Your task to perform on an android device: open app "Google Chrome" Image 0: 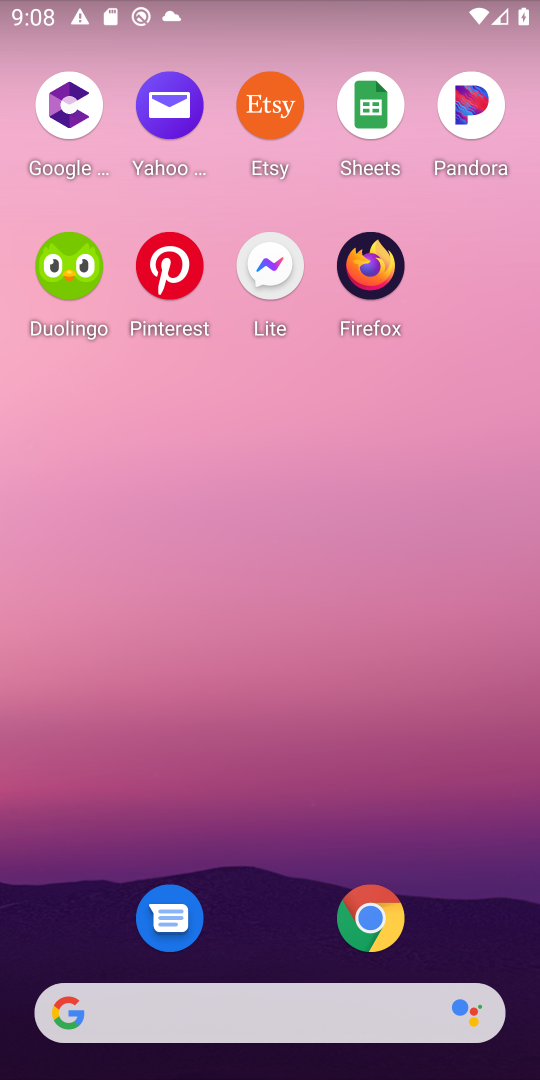
Step 0: click (362, 922)
Your task to perform on an android device: open app "Google Chrome" Image 1: 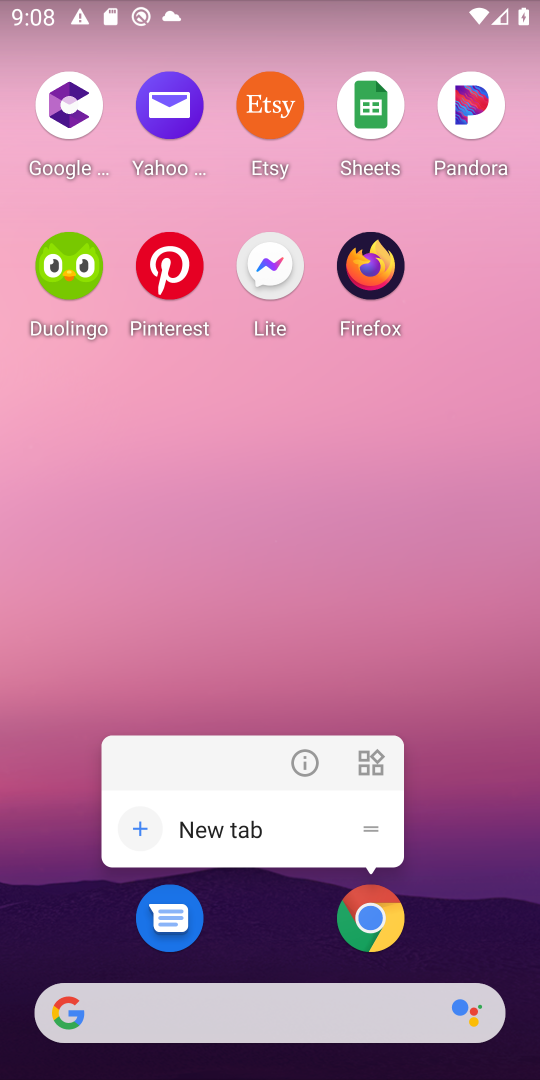
Step 1: click (362, 922)
Your task to perform on an android device: open app "Google Chrome" Image 2: 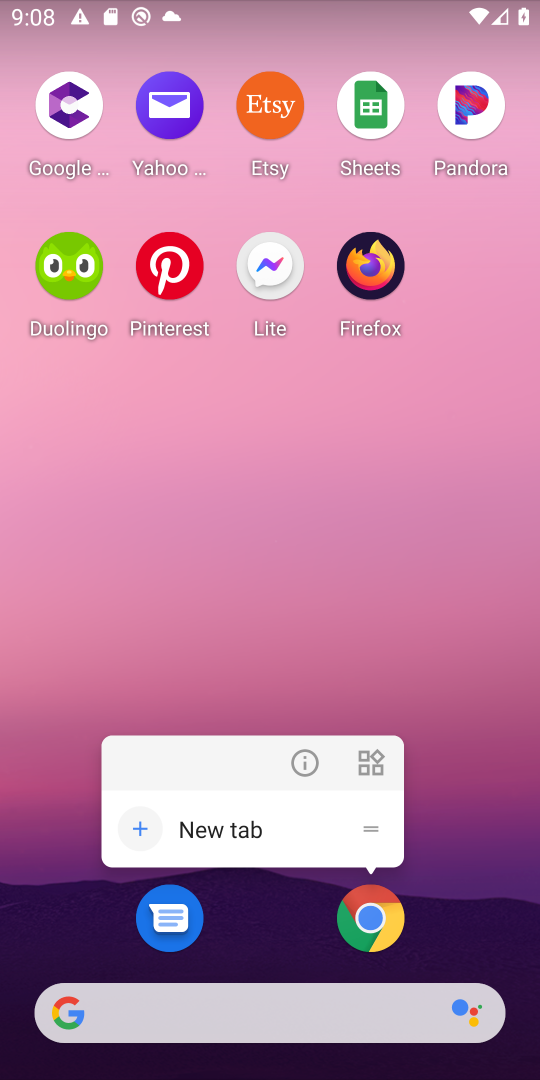
Step 2: click (362, 922)
Your task to perform on an android device: open app "Google Chrome" Image 3: 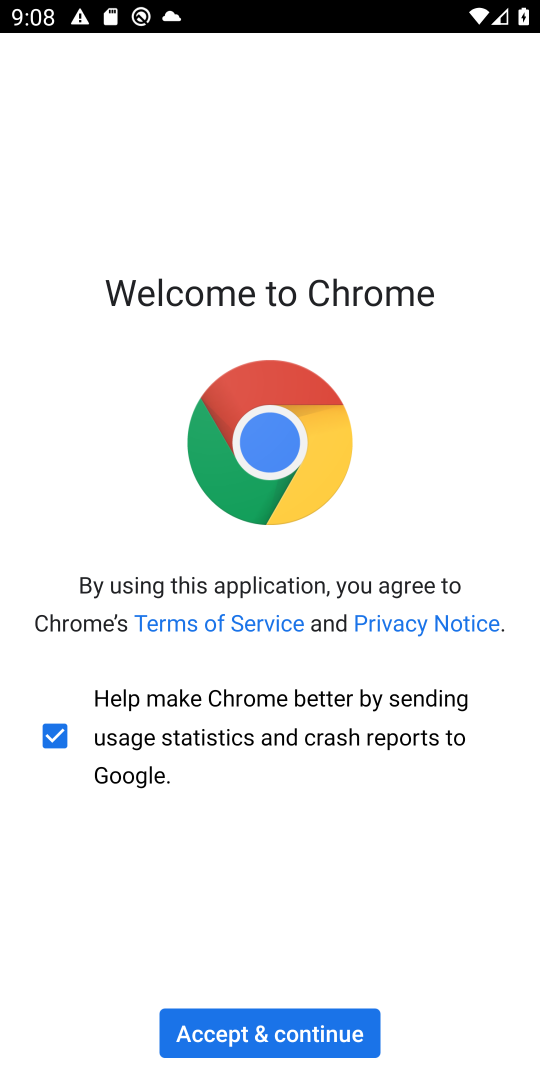
Step 3: task complete